Your task to perform on an android device: Open accessibility settings Image 0: 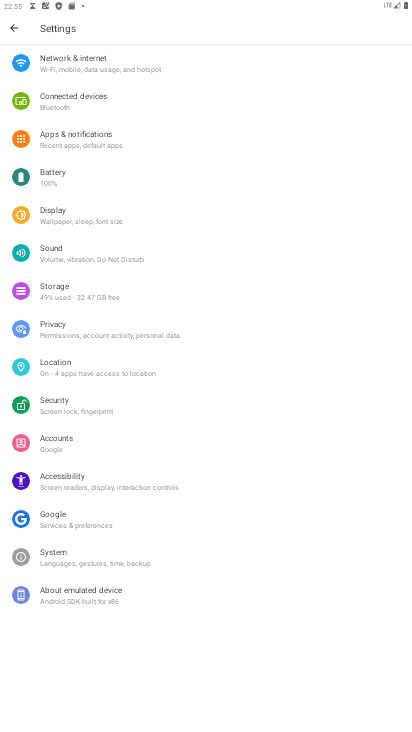
Step 0: drag from (153, 584) to (271, 222)
Your task to perform on an android device: Open accessibility settings Image 1: 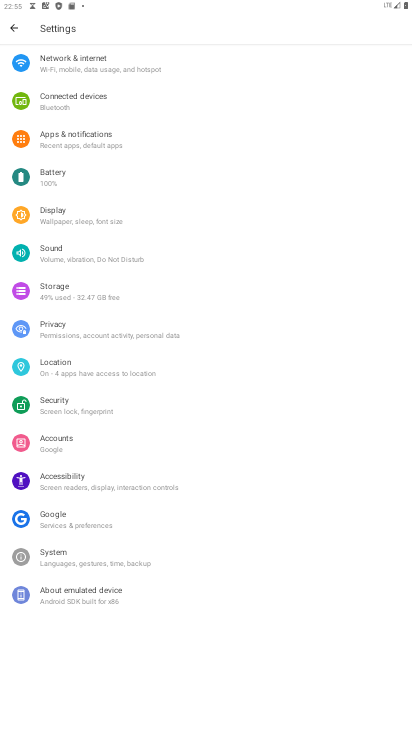
Step 1: drag from (177, 611) to (282, 353)
Your task to perform on an android device: Open accessibility settings Image 2: 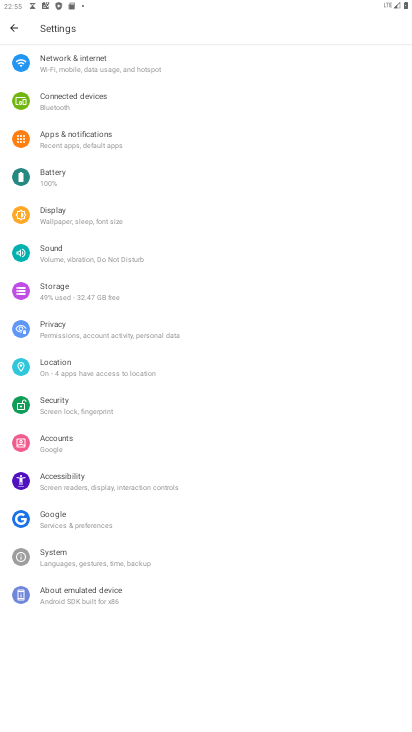
Step 2: click (88, 481)
Your task to perform on an android device: Open accessibility settings Image 3: 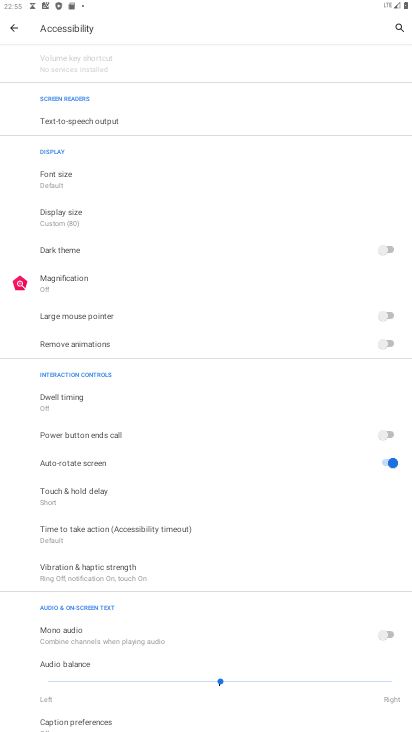
Step 3: task complete